Your task to perform on an android device: choose inbox layout in the gmail app Image 0: 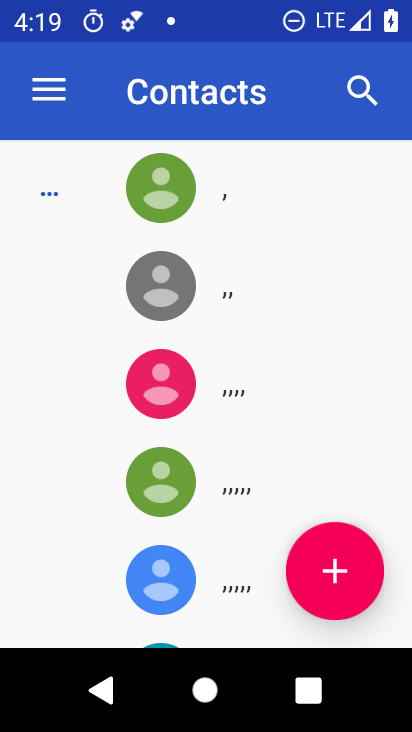
Step 0: press back button
Your task to perform on an android device: choose inbox layout in the gmail app Image 1: 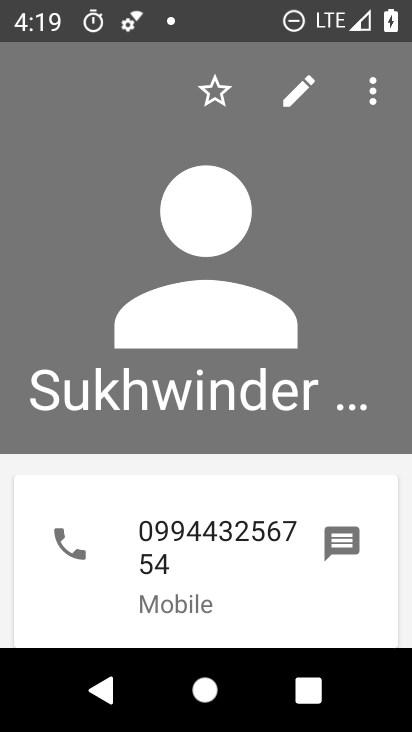
Step 1: press back button
Your task to perform on an android device: choose inbox layout in the gmail app Image 2: 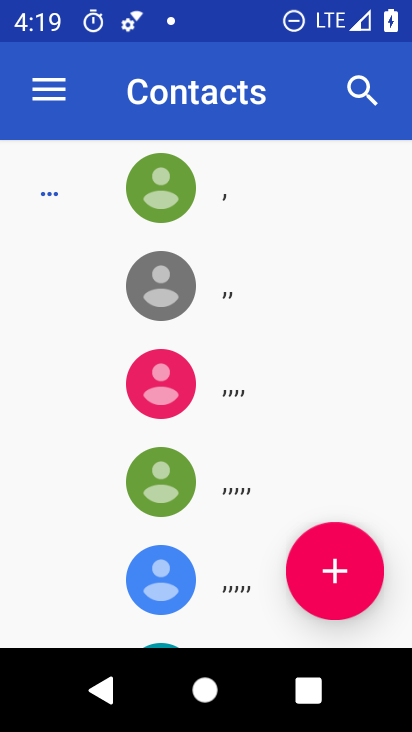
Step 2: press back button
Your task to perform on an android device: choose inbox layout in the gmail app Image 3: 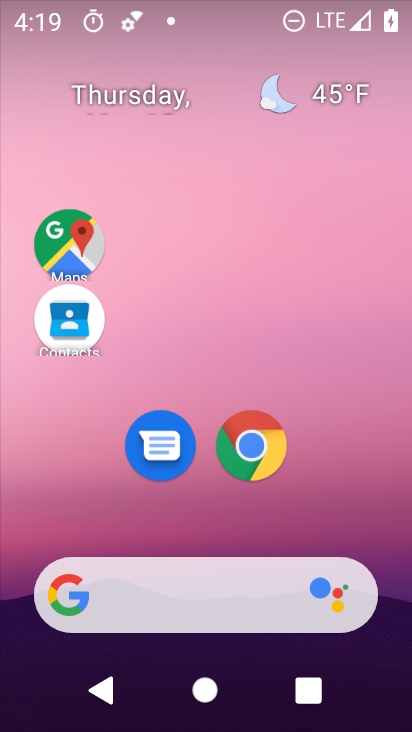
Step 3: drag from (334, 506) to (282, 72)
Your task to perform on an android device: choose inbox layout in the gmail app Image 4: 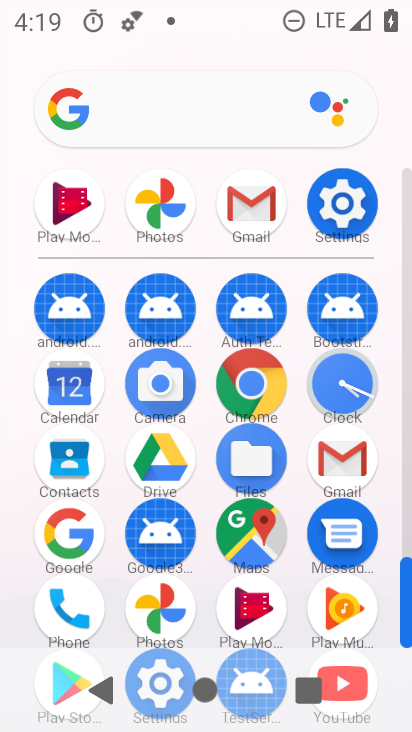
Step 4: click (251, 202)
Your task to perform on an android device: choose inbox layout in the gmail app Image 5: 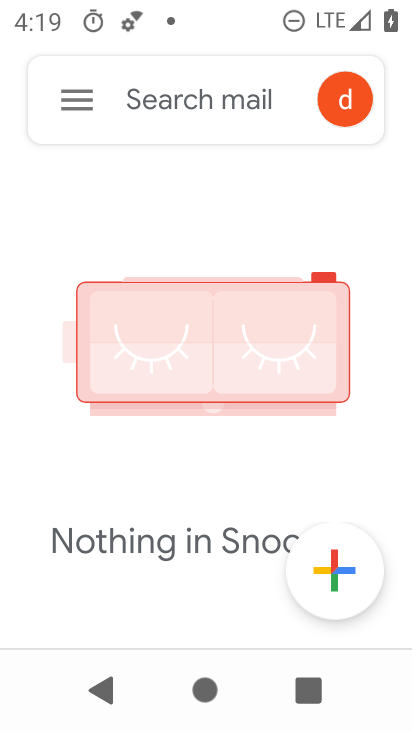
Step 5: click (88, 95)
Your task to perform on an android device: choose inbox layout in the gmail app Image 6: 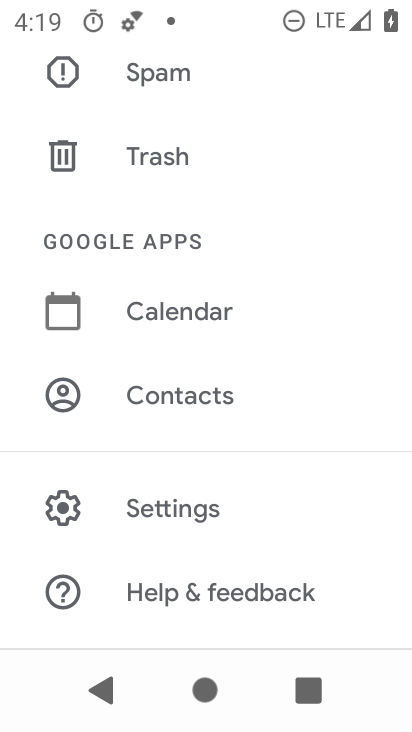
Step 6: click (191, 516)
Your task to perform on an android device: choose inbox layout in the gmail app Image 7: 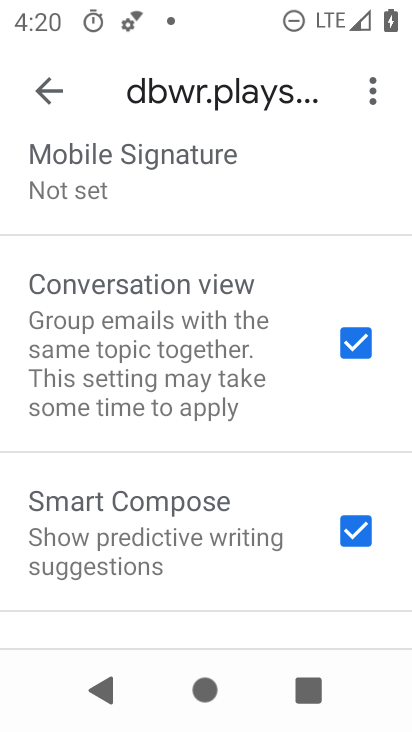
Step 7: drag from (172, 187) to (208, 428)
Your task to perform on an android device: choose inbox layout in the gmail app Image 8: 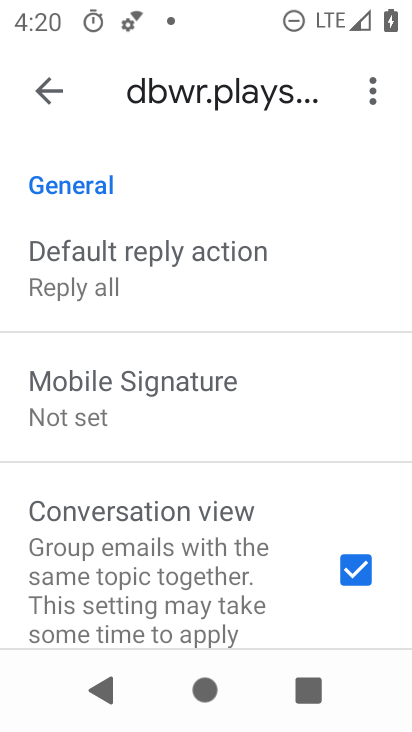
Step 8: drag from (263, 200) to (281, 377)
Your task to perform on an android device: choose inbox layout in the gmail app Image 9: 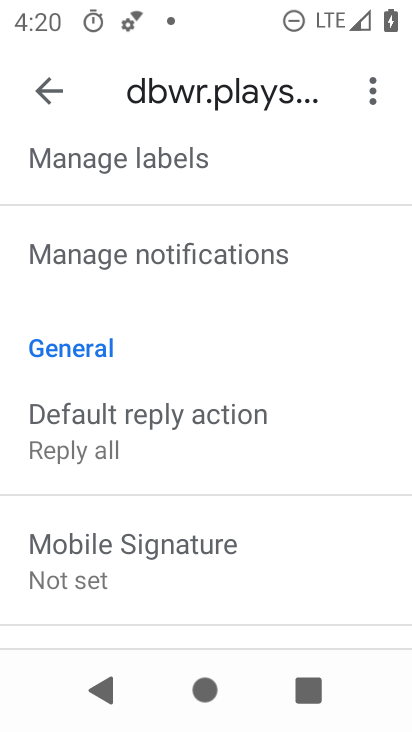
Step 9: drag from (194, 178) to (216, 360)
Your task to perform on an android device: choose inbox layout in the gmail app Image 10: 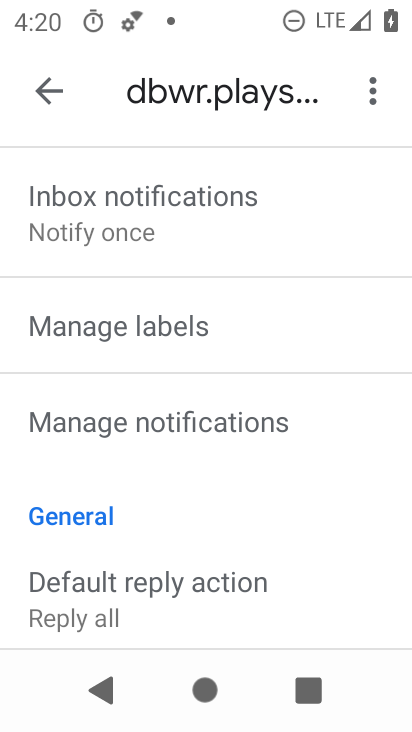
Step 10: drag from (268, 243) to (312, 435)
Your task to perform on an android device: choose inbox layout in the gmail app Image 11: 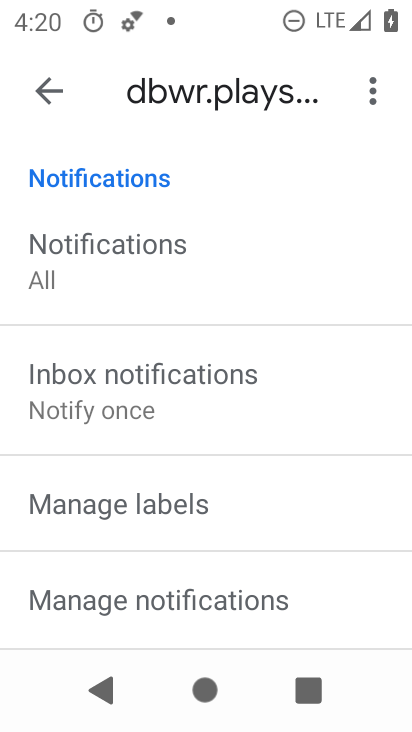
Step 11: drag from (244, 263) to (289, 525)
Your task to perform on an android device: choose inbox layout in the gmail app Image 12: 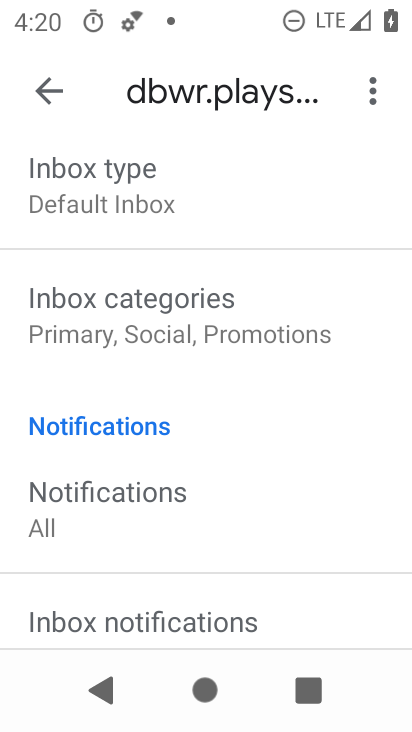
Step 12: click (199, 220)
Your task to perform on an android device: choose inbox layout in the gmail app Image 13: 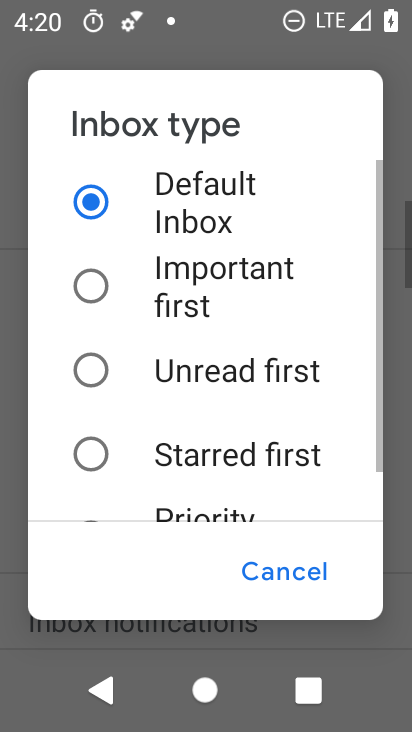
Step 13: click (225, 259)
Your task to perform on an android device: choose inbox layout in the gmail app Image 14: 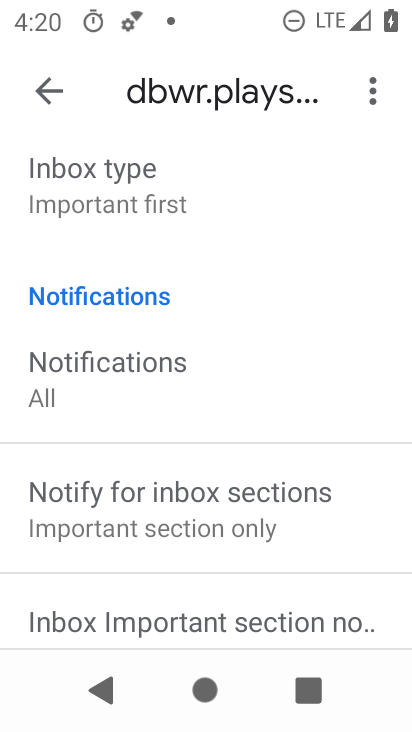
Step 14: task complete